Your task to perform on an android device: open the mobile data screen to see how much data has been used Image 0: 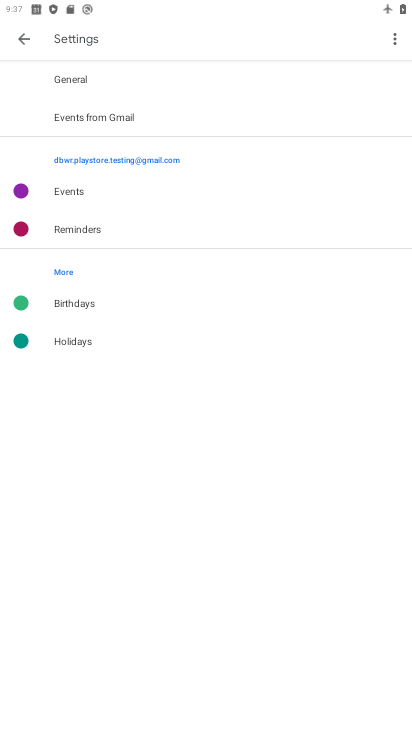
Step 0: press home button
Your task to perform on an android device: open the mobile data screen to see how much data has been used Image 1: 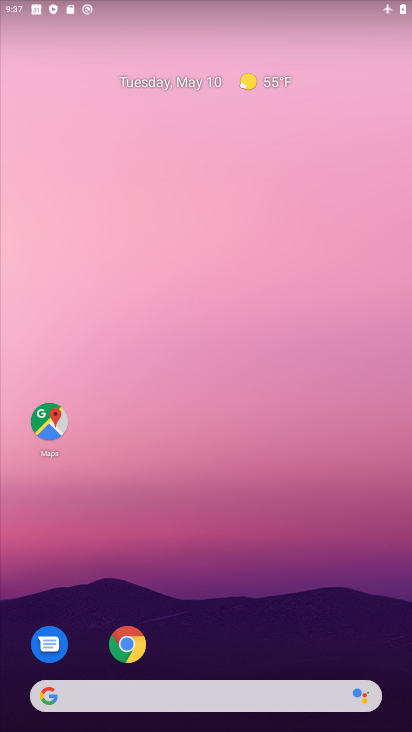
Step 1: drag from (271, 654) to (332, 0)
Your task to perform on an android device: open the mobile data screen to see how much data has been used Image 2: 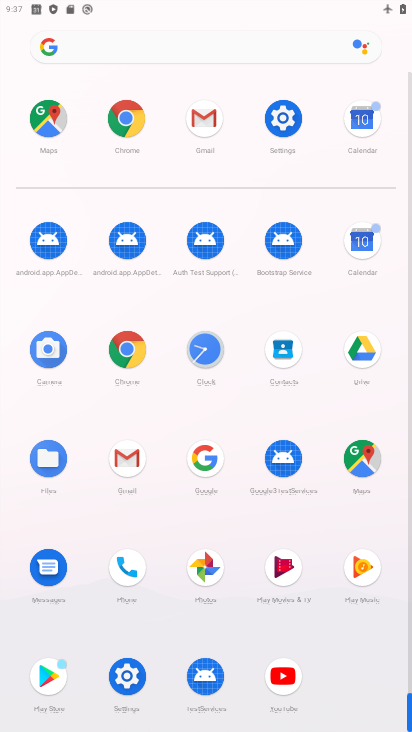
Step 2: click (302, 136)
Your task to perform on an android device: open the mobile data screen to see how much data has been used Image 3: 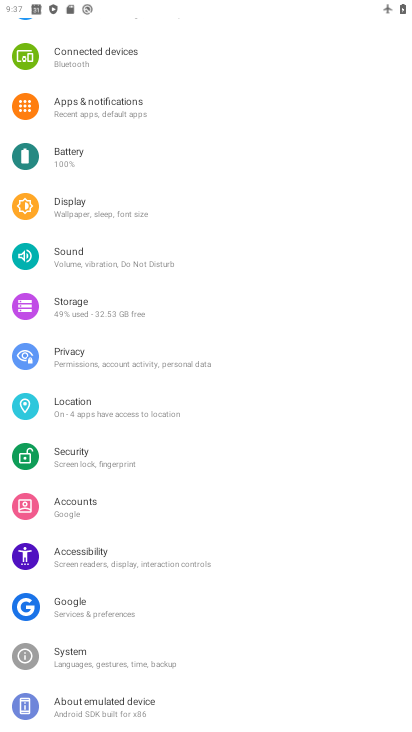
Step 3: drag from (301, 246) to (304, 393)
Your task to perform on an android device: open the mobile data screen to see how much data has been used Image 4: 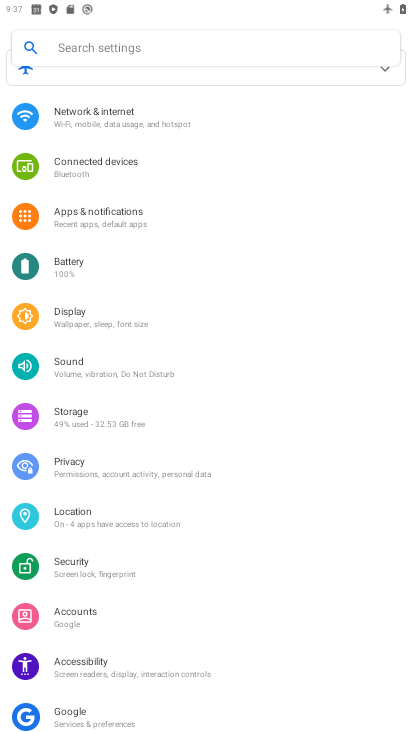
Step 4: click (150, 126)
Your task to perform on an android device: open the mobile data screen to see how much data has been used Image 5: 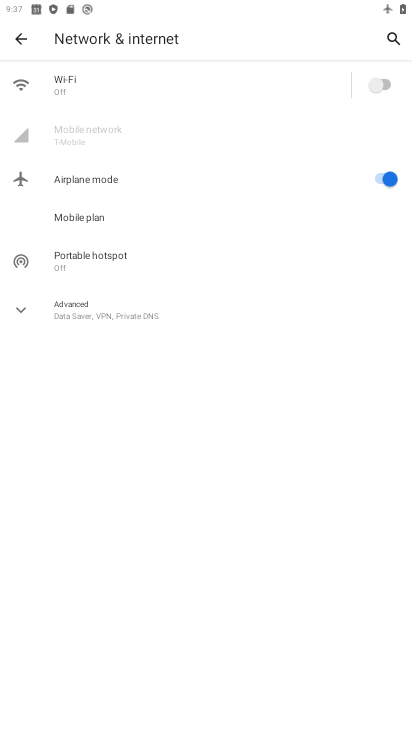
Step 5: click (144, 126)
Your task to perform on an android device: open the mobile data screen to see how much data has been used Image 6: 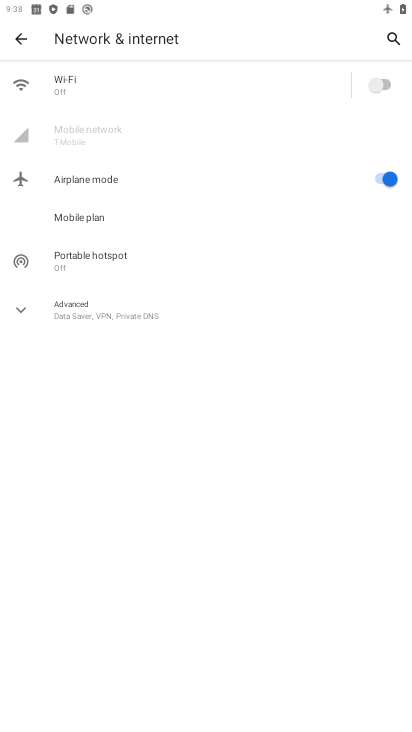
Step 6: task complete